Your task to perform on an android device: Open Google Maps and go to "Timeline" Image 0: 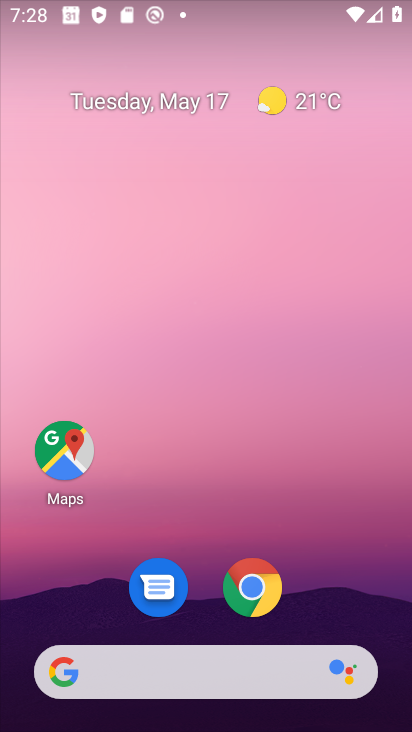
Step 0: drag from (368, 600) to (360, 164)
Your task to perform on an android device: Open Google Maps and go to "Timeline" Image 1: 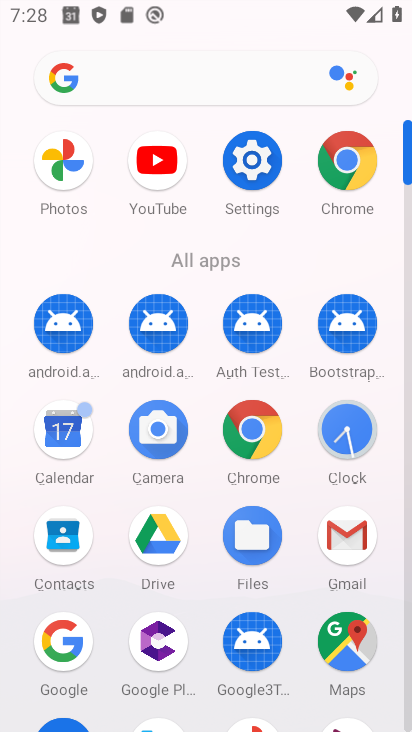
Step 1: drag from (395, 560) to (401, 200)
Your task to perform on an android device: Open Google Maps and go to "Timeline" Image 2: 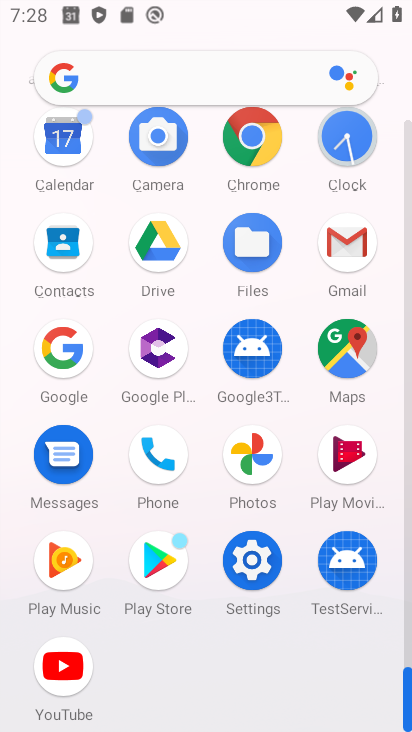
Step 2: click (365, 358)
Your task to perform on an android device: Open Google Maps and go to "Timeline" Image 3: 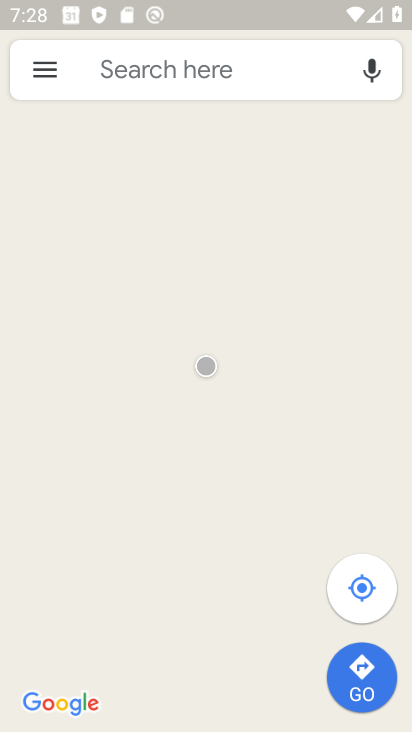
Step 3: click (40, 80)
Your task to perform on an android device: Open Google Maps and go to "Timeline" Image 4: 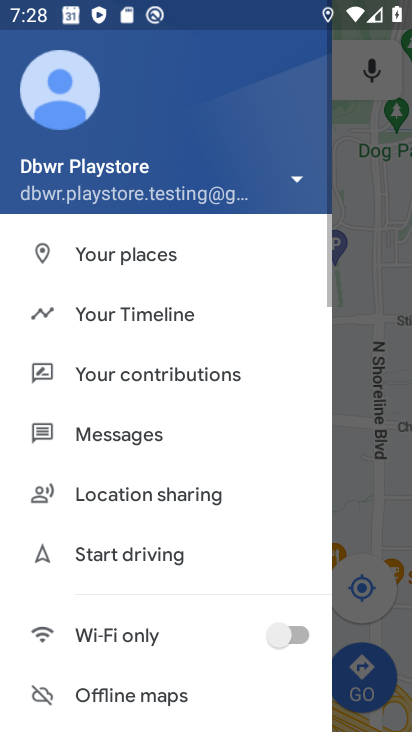
Step 4: drag from (234, 599) to (255, 468)
Your task to perform on an android device: Open Google Maps and go to "Timeline" Image 5: 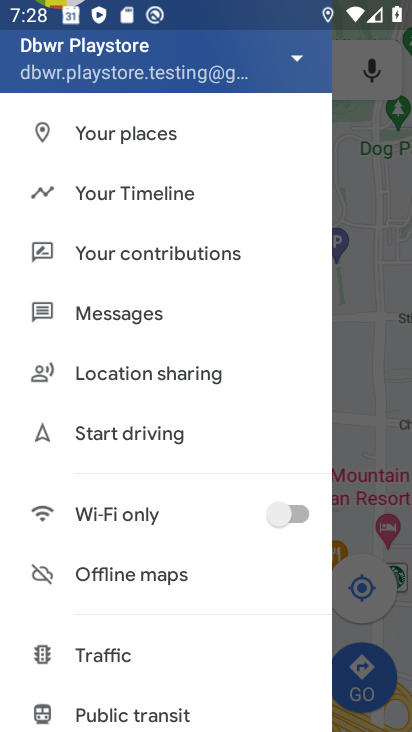
Step 5: drag from (227, 596) to (229, 434)
Your task to perform on an android device: Open Google Maps and go to "Timeline" Image 6: 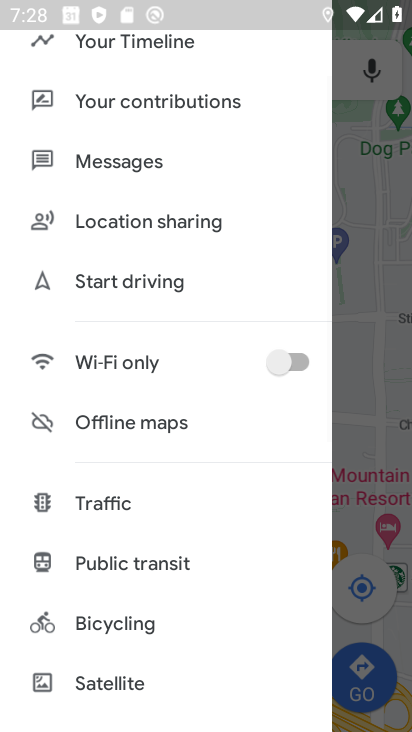
Step 6: drag from (220, 636) to (216, 402)
Your task to perform on an android device: Open Google Maps and go to "Timeline" Image 7: 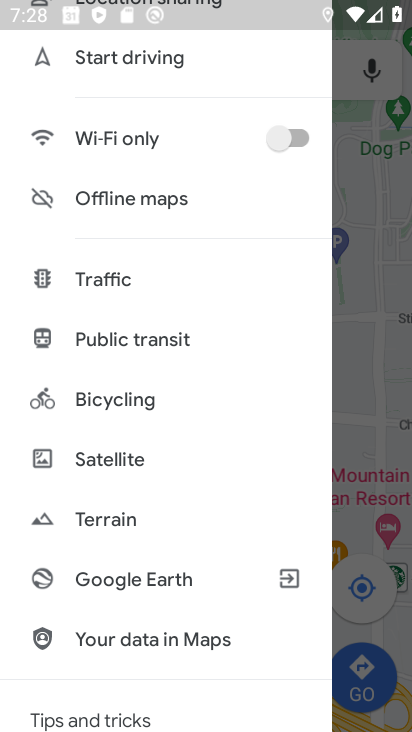
Step 7: drag from (224, 670) to (235, 408)
Your task to perform on an android device: Open Google Maps and go to "Timeline" Image 8: 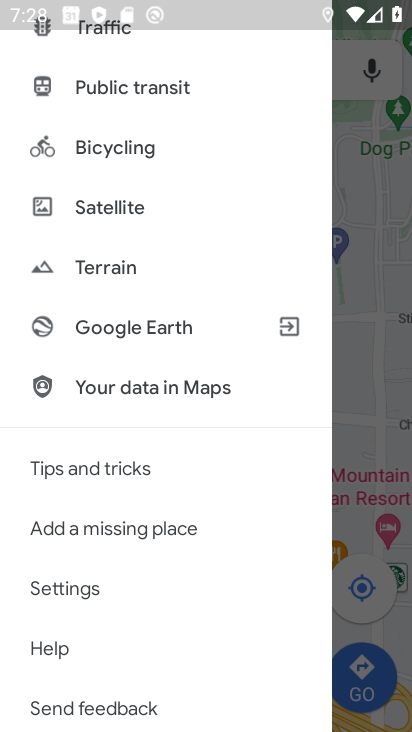
Step 8: drag from (230, 659) to (243, 428)
Your task to perform on an android device: Open Google Maps and go to "Timeline" Image 9: 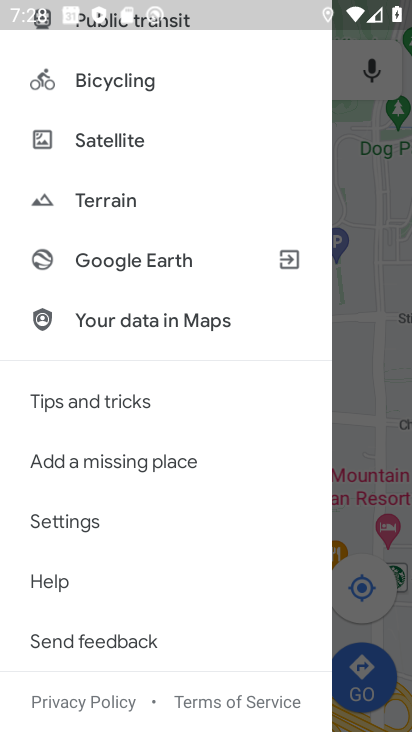
Step 9: drag from (246, 318) to (247, 404)
Your task to perform on an android device: Open Google Maps and go to "Timeline" Image 10: 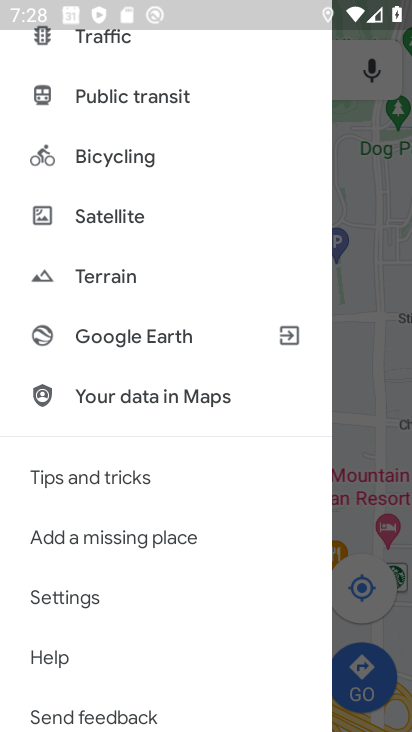
Step 10: drag from (236, 216) to (244, 421)
Your task to perform on an android device: Open Google Maps and go to "Timeline" Image 11: 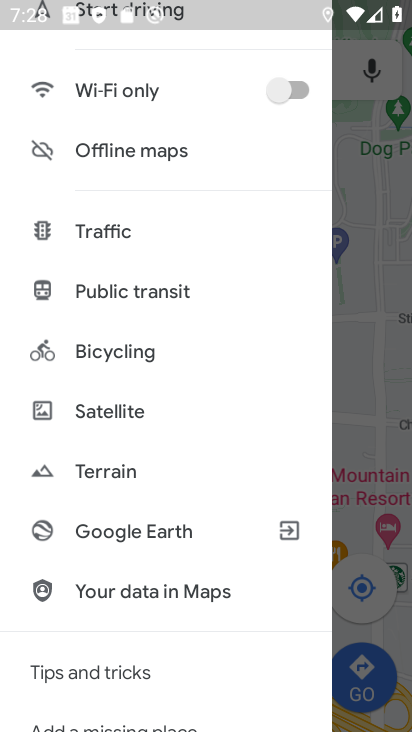
Step 11: drag from (233, 232) to (228, 397)
Your task to perform on an android device: Open Google Maps and go to "Timeline" Image 12: 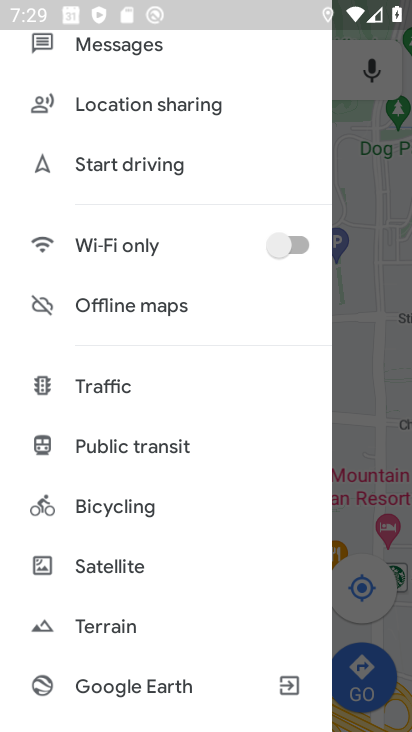
Step 12: drag from (220, 181) to (220, 399)
Your task to perform on an android device: Open Google Maps and go to "Timeline" Image 13: 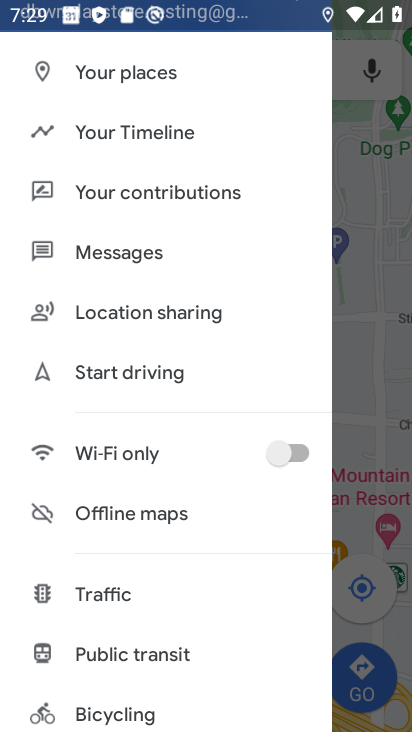
Step 13: click (168, 134)
Your task to perform on an android device: Open Google Maps and go to "Timeline" Image 14: 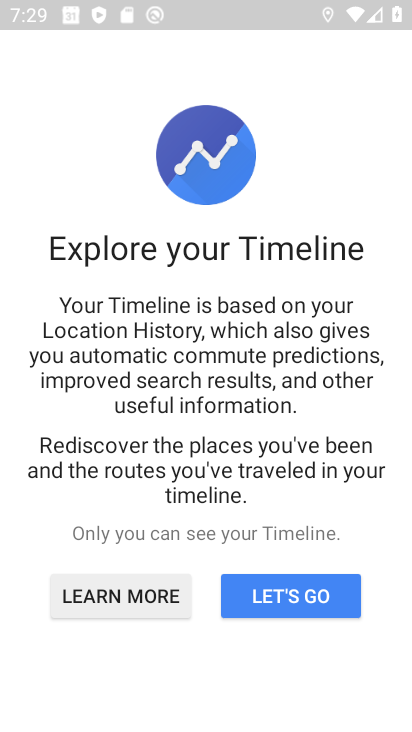
Step 14: task complete